Your task to perform on an android device: turn on the 24-hour format for clock Image 0: 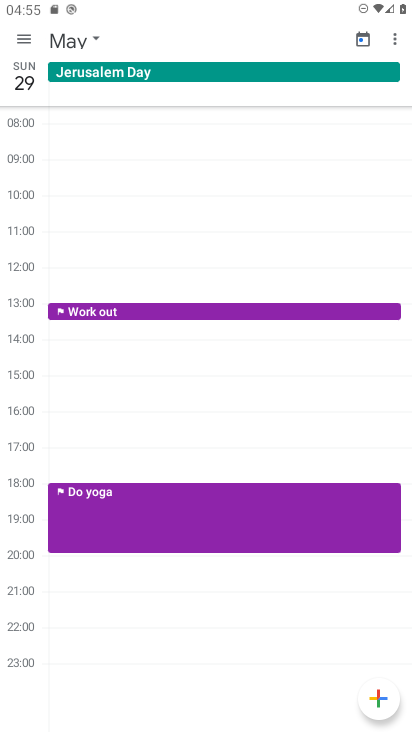
Step 0: press home button
Your task to perform on an android device: turn on the 24-hour format for clock Image 1: 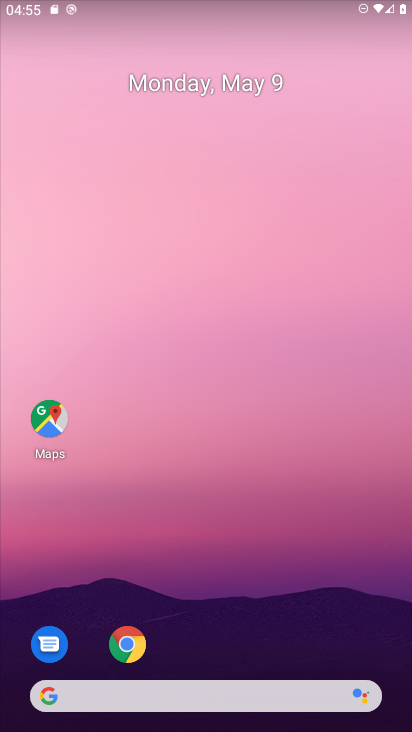
Step 1: drag from (212, 579) to (179, 51)
Your task to perform on an android device: turn on the 24-hour format for clock Image 2: 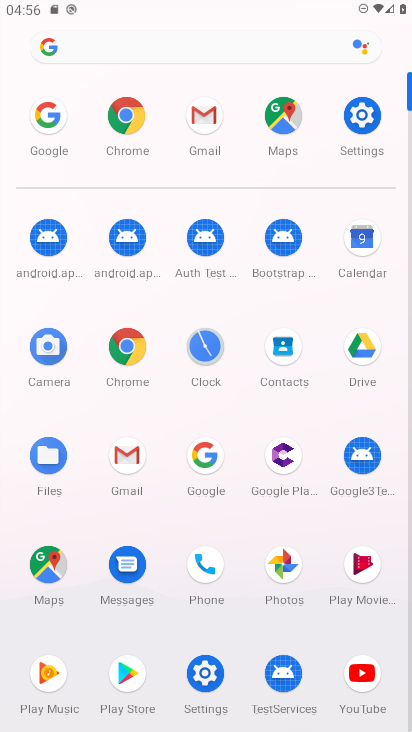
Step 2: click (205, 348)
Your task to perform on an android device: turn on the 24-hour format for clock Image 3: 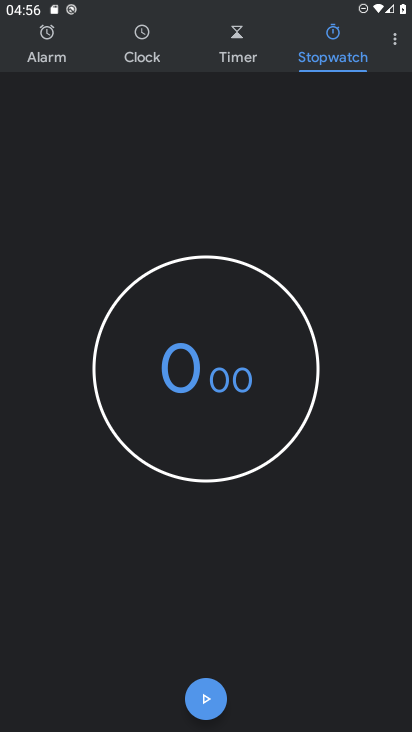
Step 3: click (393, 43)
Your task to perform on an android device: turn on the 24-hour format for clock Image 4: 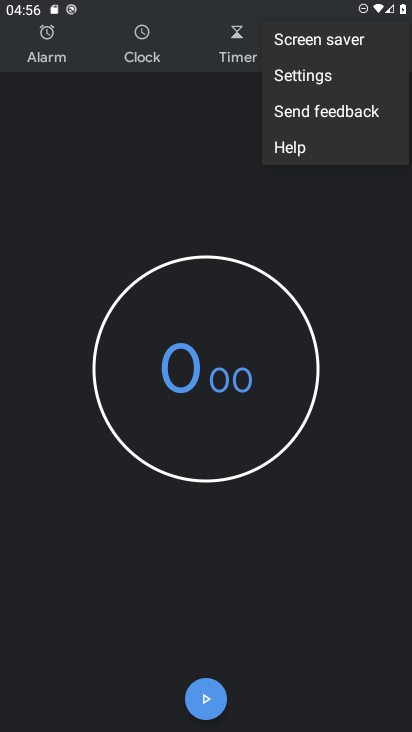
Step 4: click (326, 78)
Your task to perform on an android device: turn on the 24-hour format for clock Image 5: 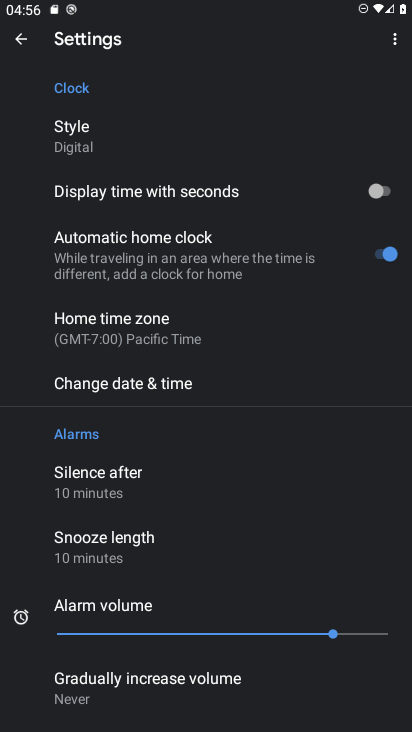
Step 5: click (176, 385)
Your task to perform on an android device: turn on the 24-hour format for clock Image 6: 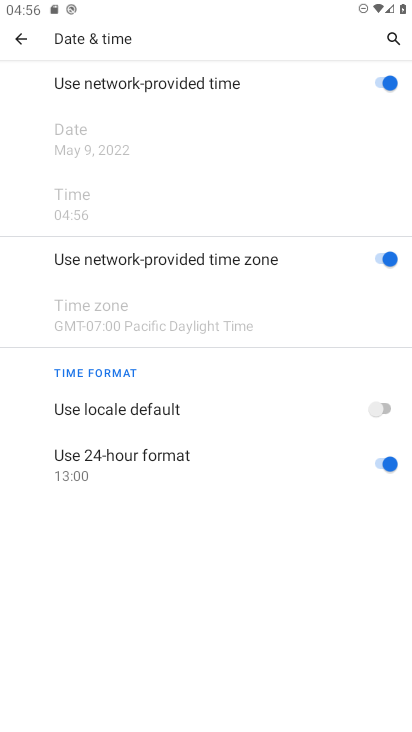
Step 6: task complete